Your task to perform on an android device: change the clock display to show seconds Image 0: 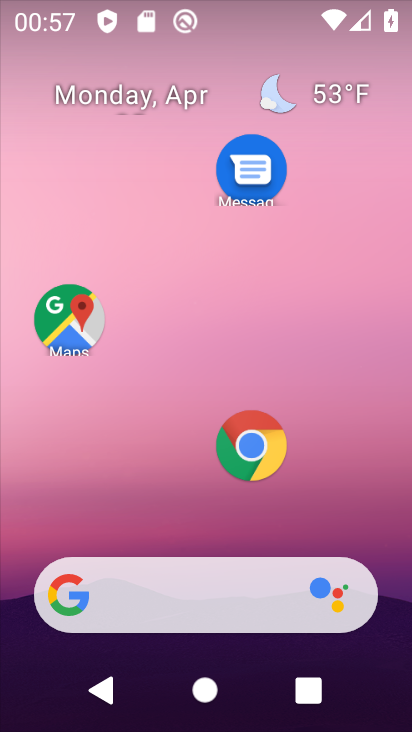
Step 0: drag from (153, 514) to (229, 54)
Your task to perform on an android device: change the clock display to show seconds Image 1: 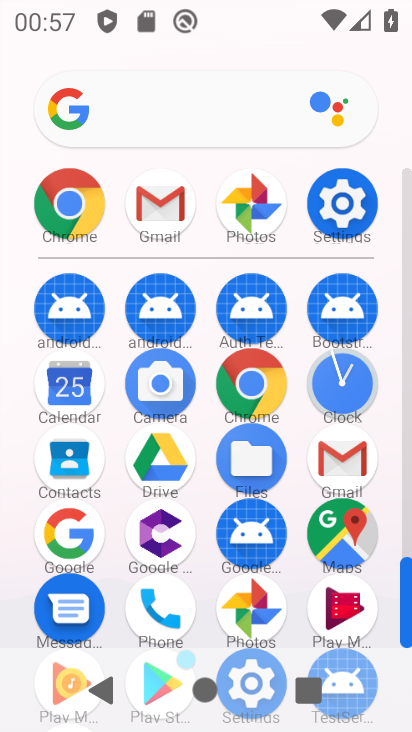
Step 1: click (335, 222)
Your task to perform on an android device: change the clock display to show seconds Image 2: 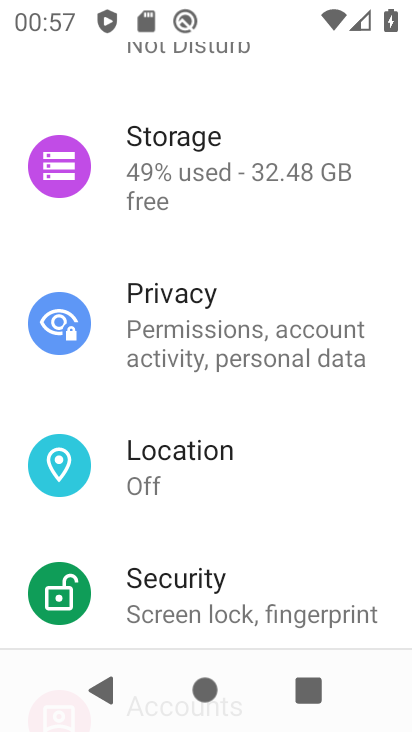
Step 2: press home button
Your task to perform on an android device: change the clock display to show seconds Image 3: 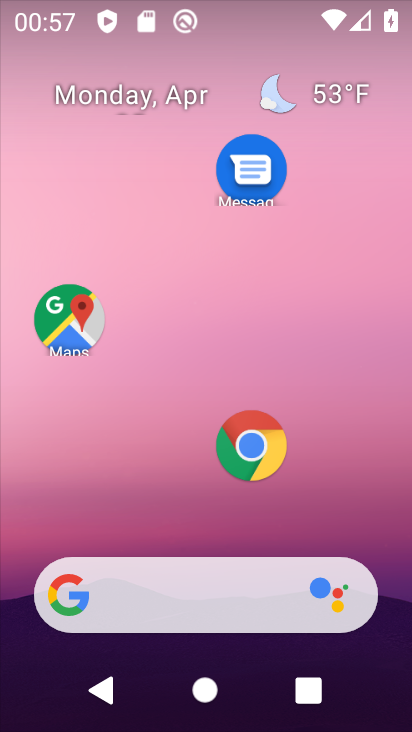
Step 3: drag from (245, 534) to (316, 57)
Your task to perform on an android device: change the clock display to show seconds Image 4: 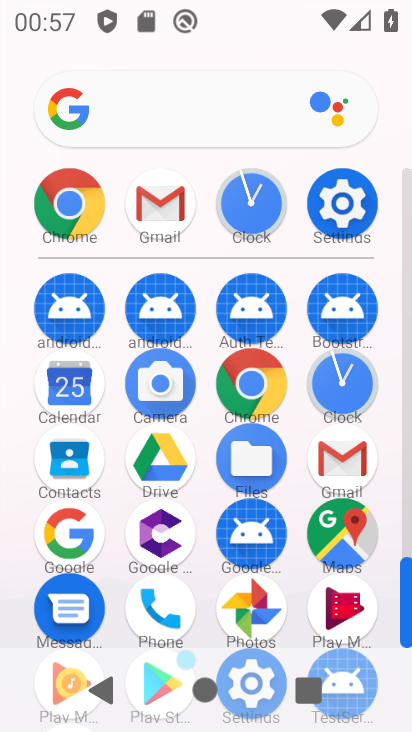
Step 4: click (345, 390)
Your task to perform on an android device: change the clock display to show seconds Image 5: 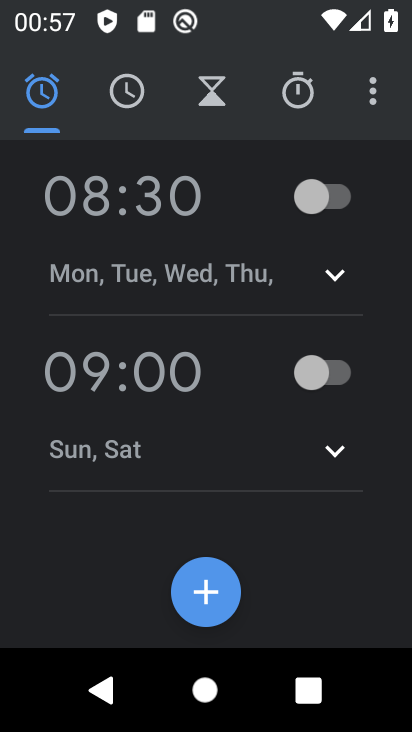
Step 5: click (370, 95)
Your task to perform on an android device: change the clock display to show seconds Image 6: 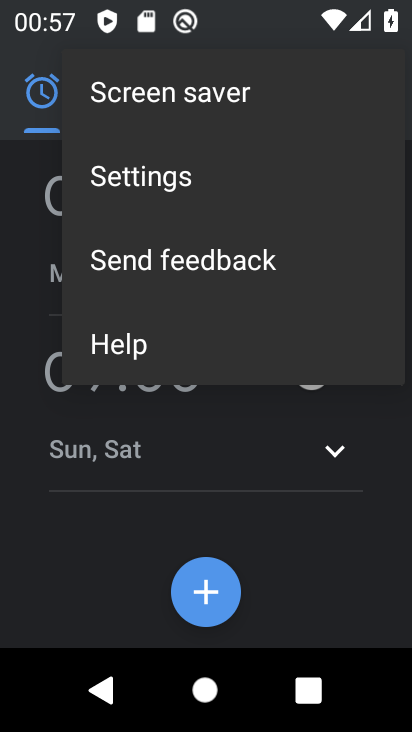
Step 6: click (143, 179)
Your task to perform on an android device: change the clock display to show seconds Image 7: 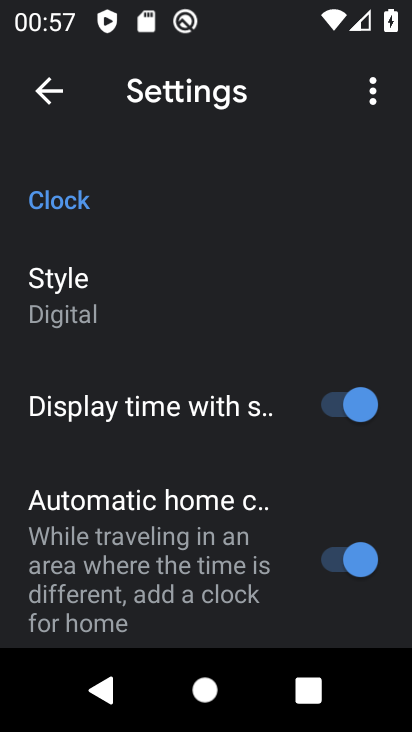
Step 7: click (99, 294)
Your task to perform on an android device: change the clock display to show seconds Image 8: 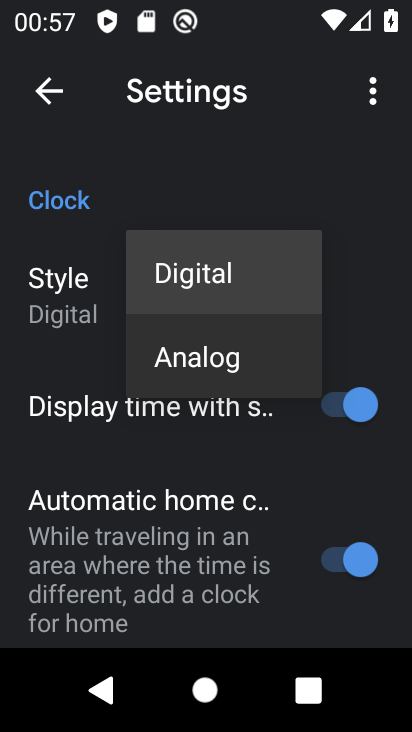
Step 8: click (265, 358)
Your task to perform on an android device: change the clock display to show seconds Image 9: 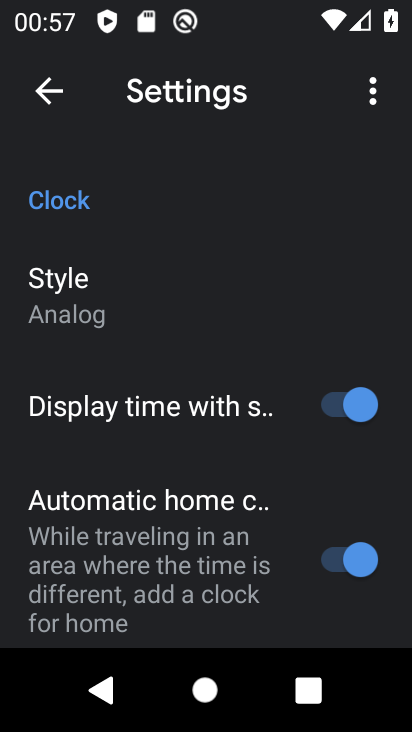
Step 9: task complete